Your task to perform on an android device: toggle sleep mode Image 0: 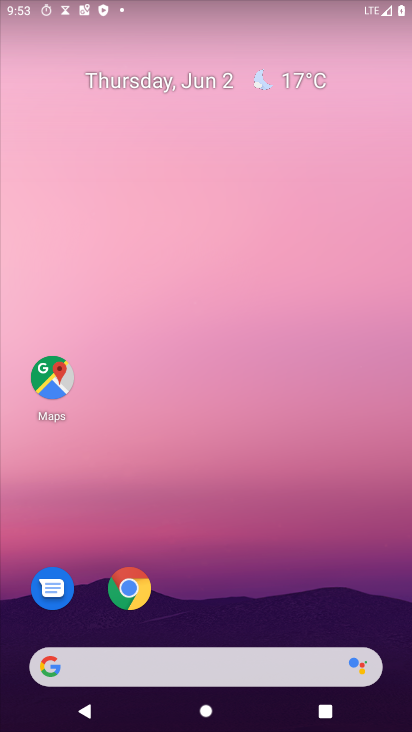
Step 0: drag from (180, 561) to (249, 79)
Your task to perform on an android device: toggle sleep mode Image 1: 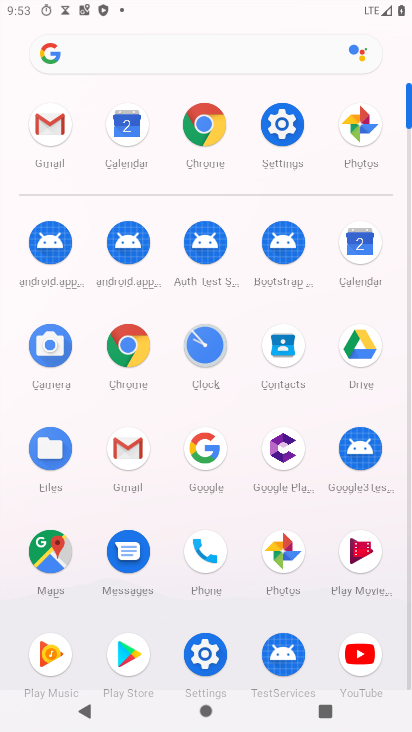
Step 1: click (283, 116)
Your task to perform on an android device: toggle sleep mode Image 2: 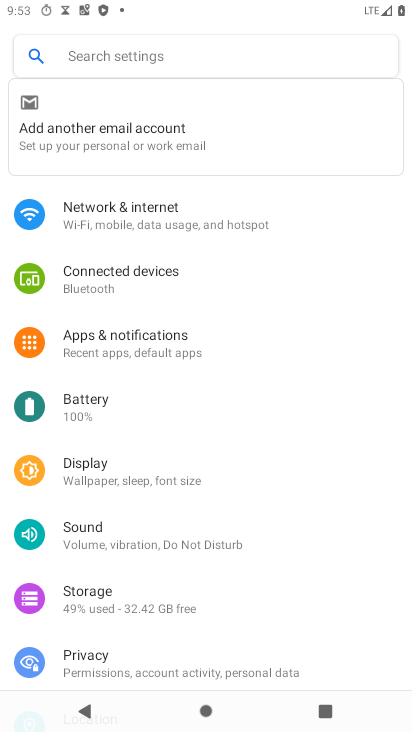
Step 2: click (127, 62)
Your task to perform on an android device: toggle sleep mode Image 3: 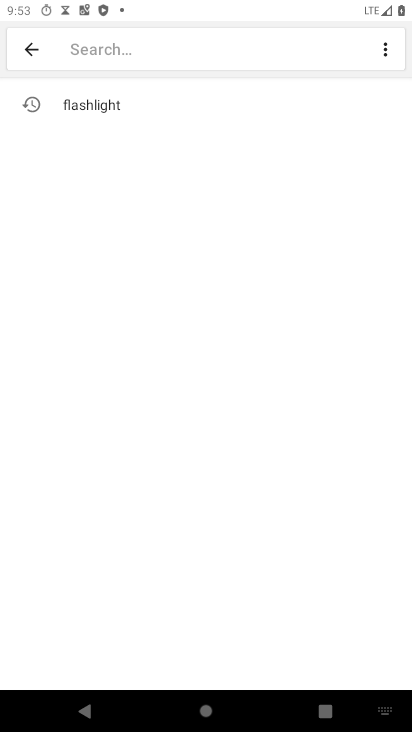
Step 3: type "sleep mode"
Your task to perform on an android device: toggle sleep mode Image 4: 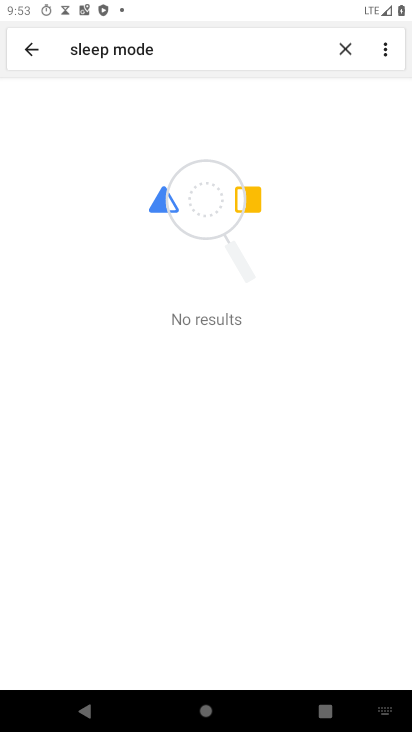
Step 4: task complete